Your task to perform on an android device: add a contact Image 0: 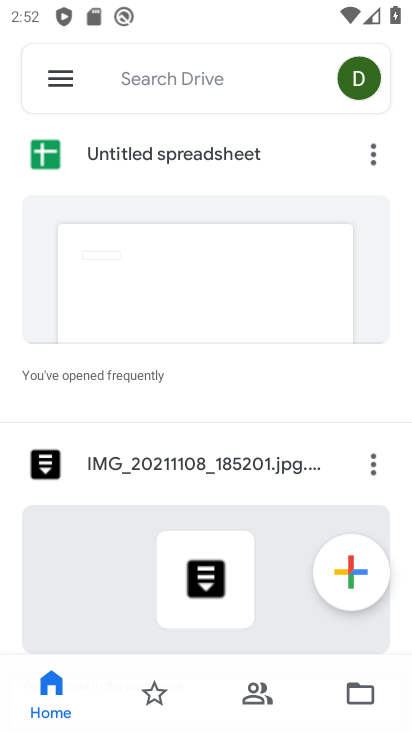
Step 0: press home button
Your task to perform on an android device: add a contact Image 1: 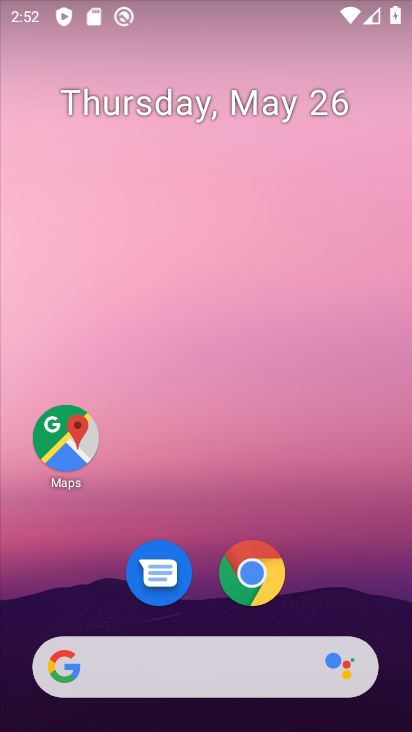
Step 1: drag from (197, 629) to (323, 92)
Your task to perform on an android device: add a contact Image 2: 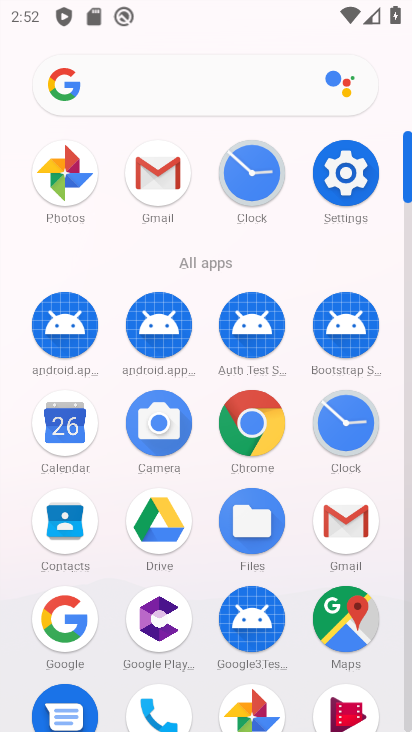
Step 2: click (59, 522)
Your task to perform on an android device: add a contact Image 3: 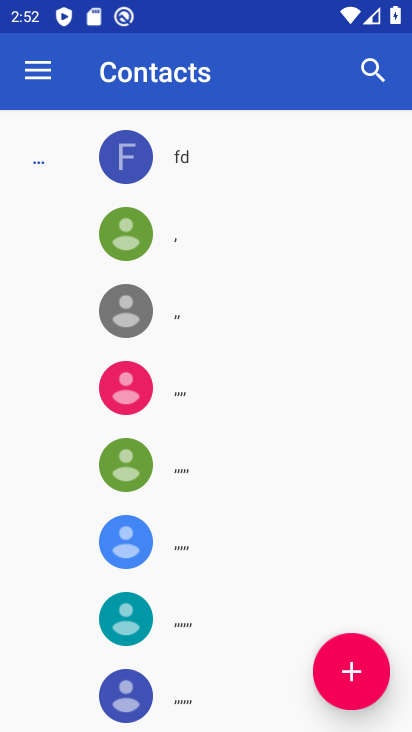
Step 3: drag from (197, 548) to (327, 36)
Your task to perform on an android device: add a contact Image 4: 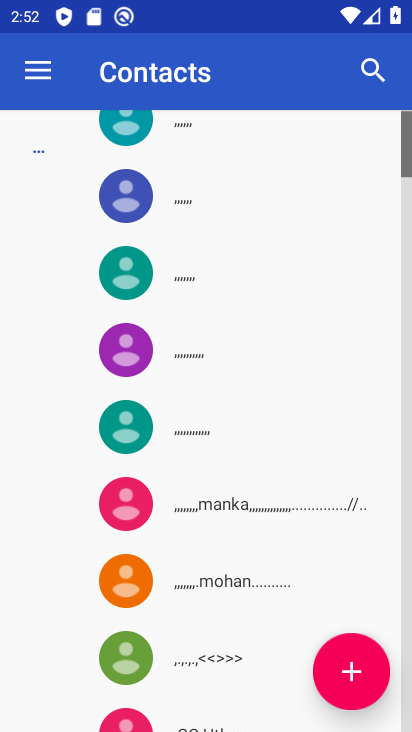
Step 4: click (354, 672)
Your task to perform on an android device: add a contact Image 5: 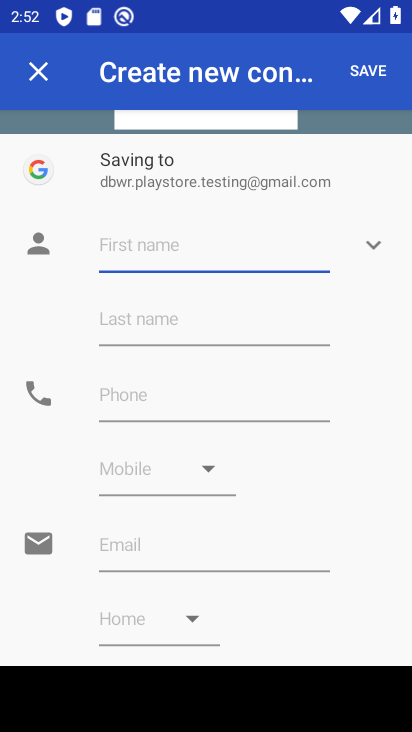
Step 5: type "xcmnbvmxcb"
Your task to perform on an android device: add a contact Image 6: 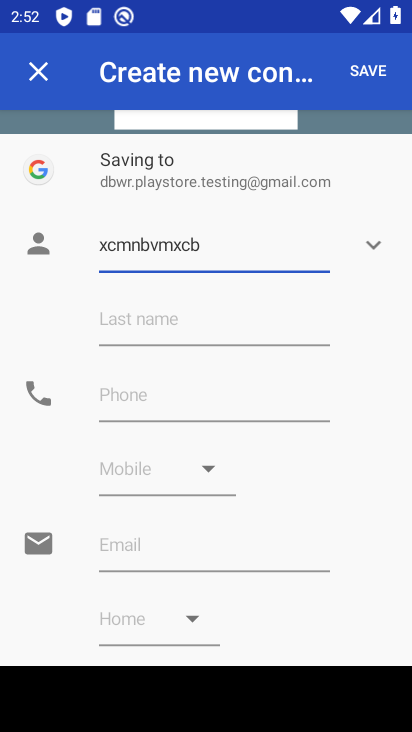
Step 6: click (204, 401)
Your task to perform on an android device: add a contact Image 7: 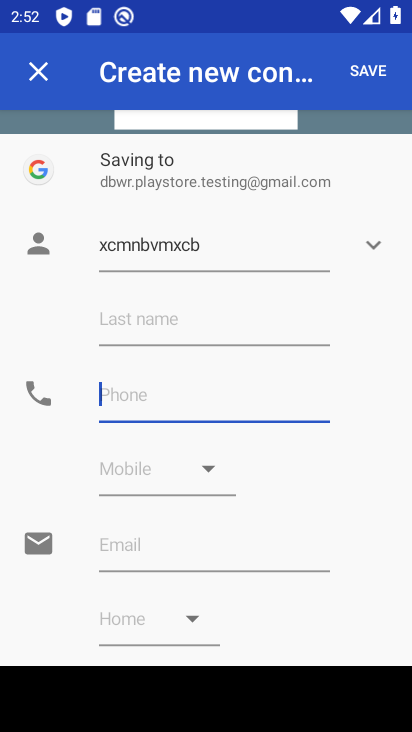
Step 7: type "2r6876"
Your task to perform on an android device: add a contact Image 8: 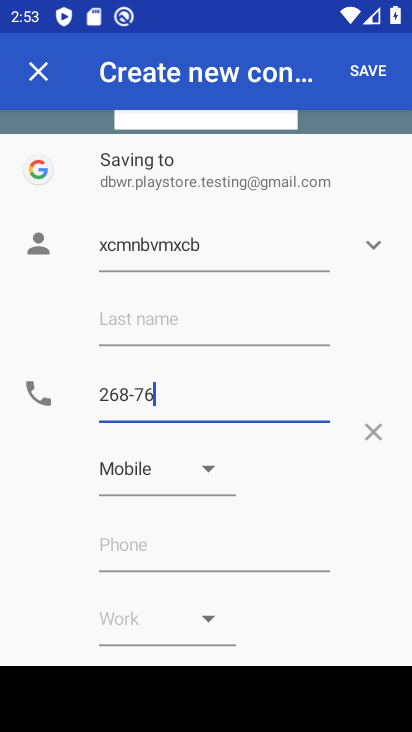
Step 8: task complete